Your task to perform on an android device: open chrome privacy settings Image 0: 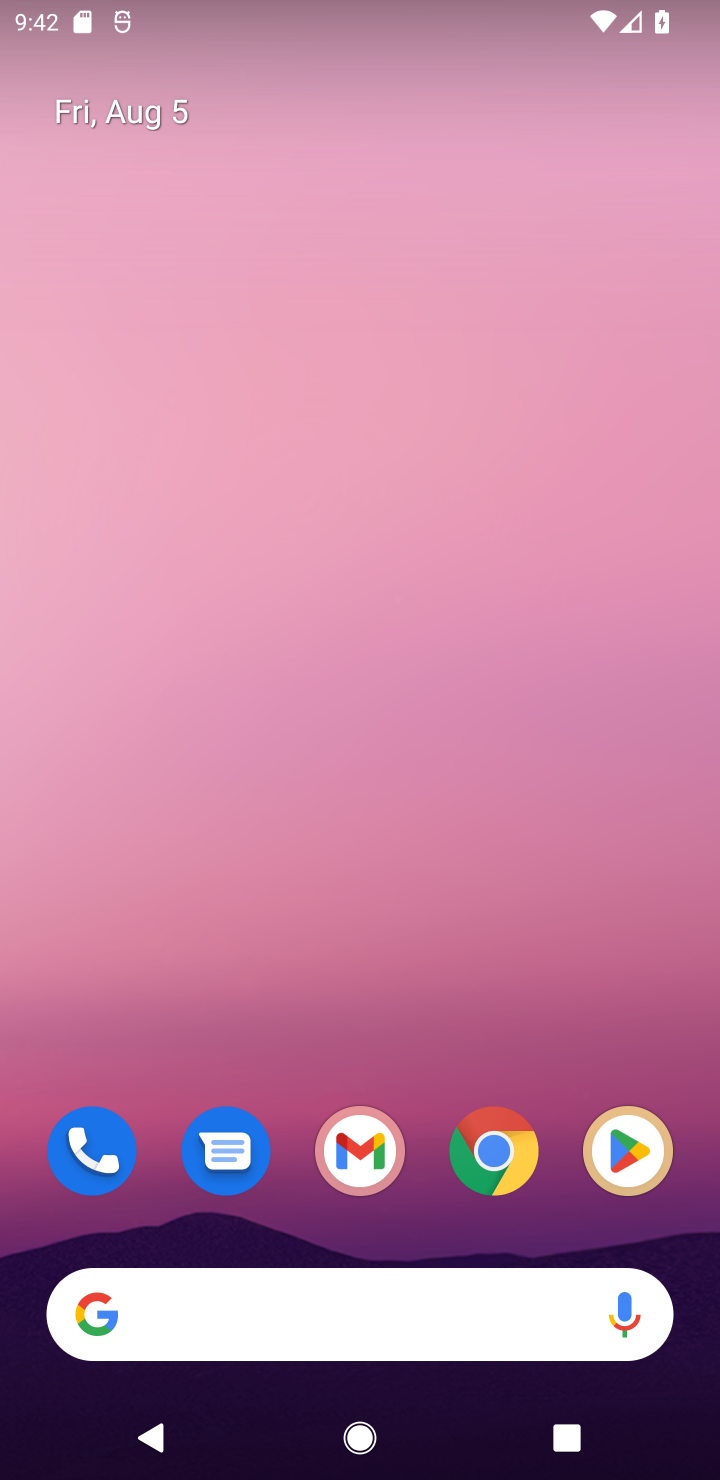
Step 0: drag from (454, 955) to (535, 186)
Your task to perform on an android device: open chrome privacy settings Image 1: 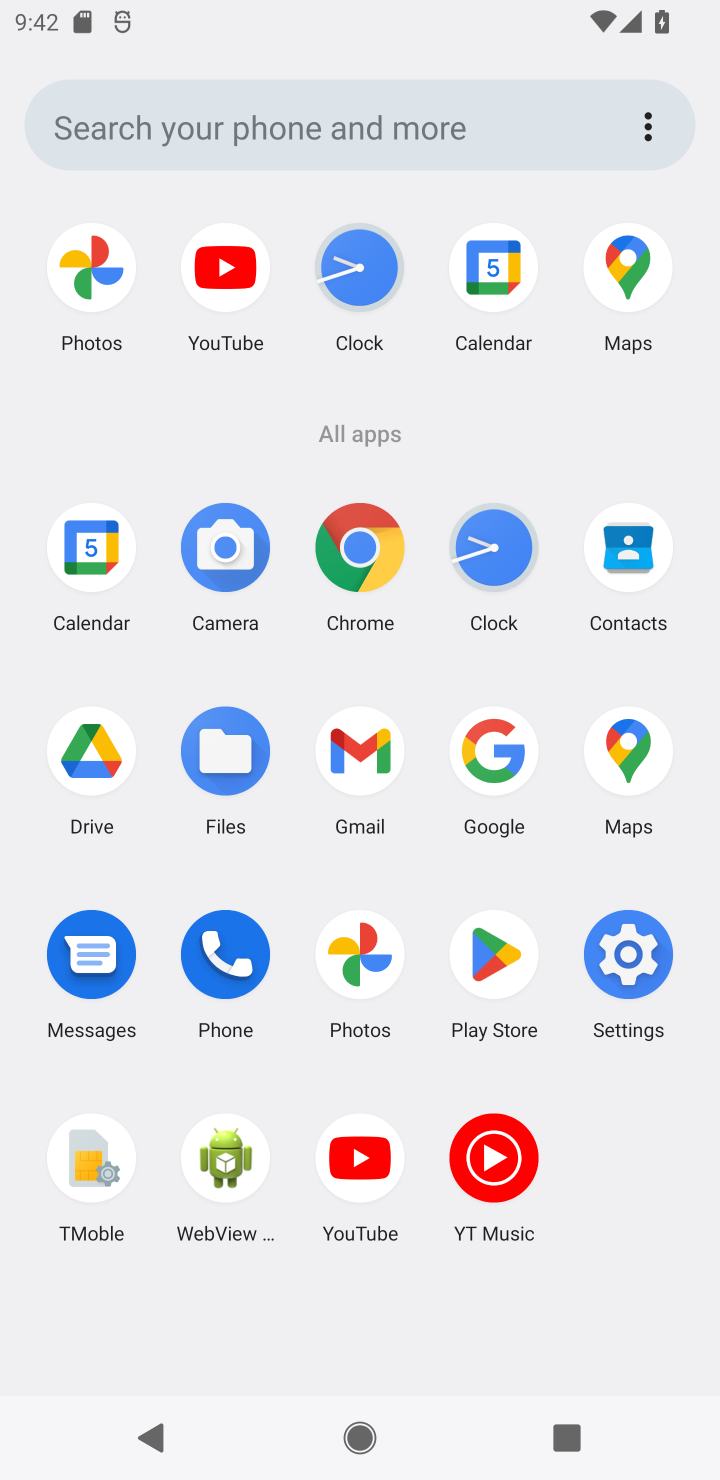
Step 1: click (639, 955)
Your task to perform on an android device: open chrome privacy settings Image 2: 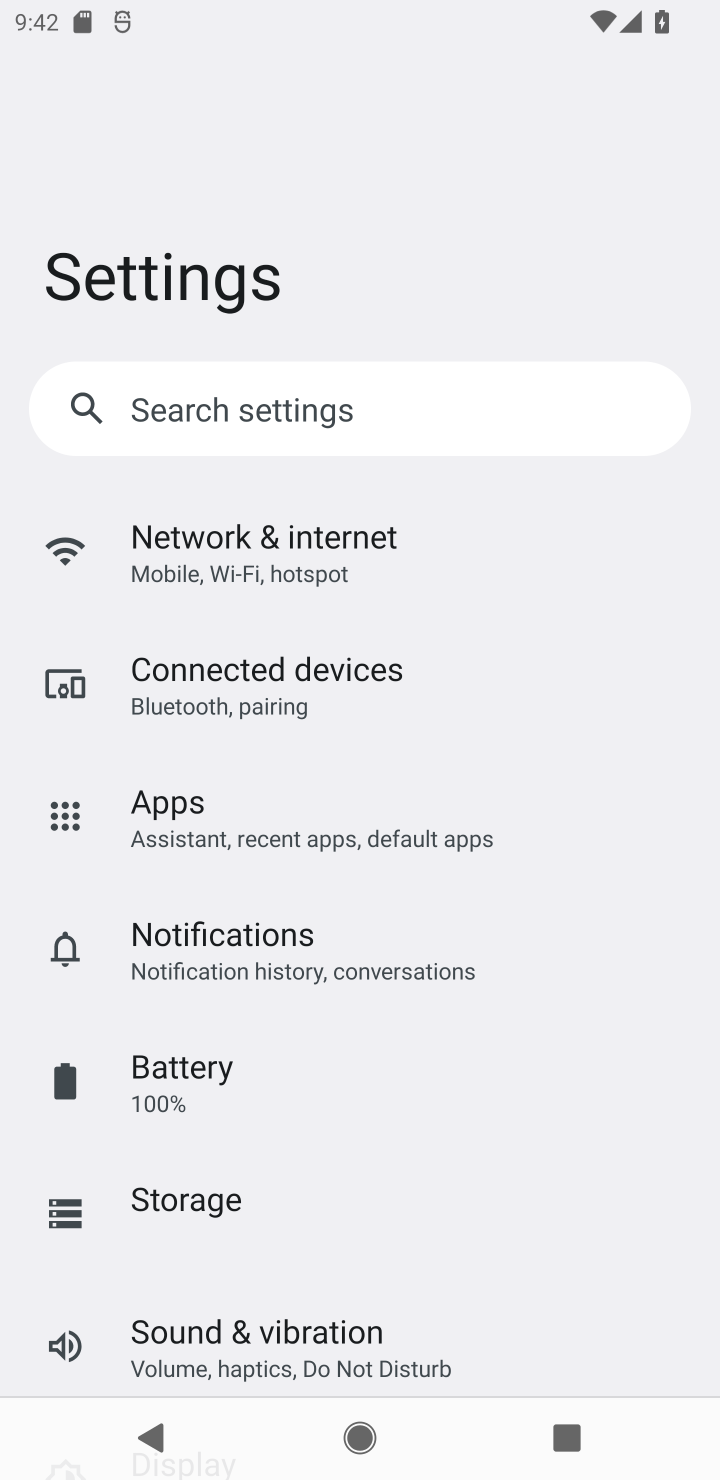
Step 2: drag from (453, 1194) to (483, 107)
Your task to perform on an android device: open chrome privacy settings Image 3: 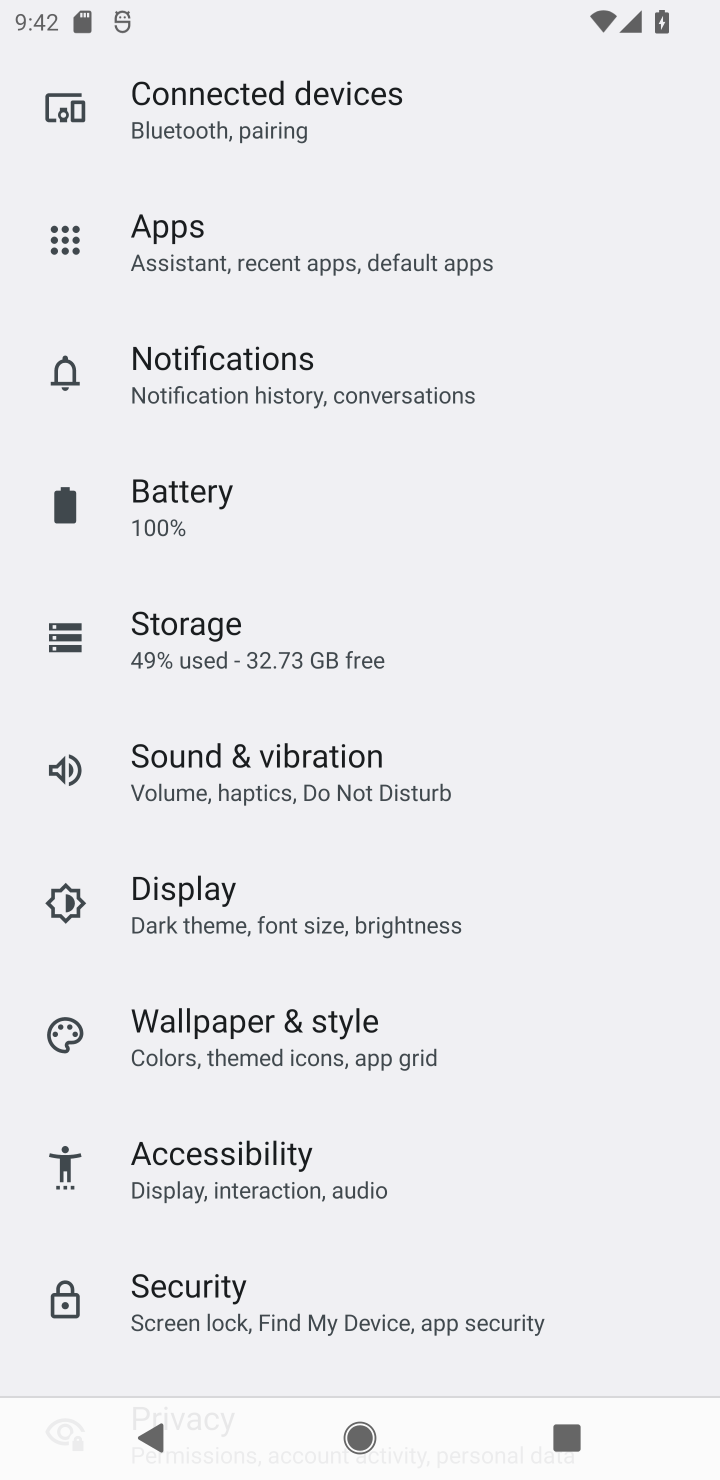
Step 3: drag from (272, 1276) to (414, 34)
Your task to perform on an android device: open chrome privacy settings Image 4: 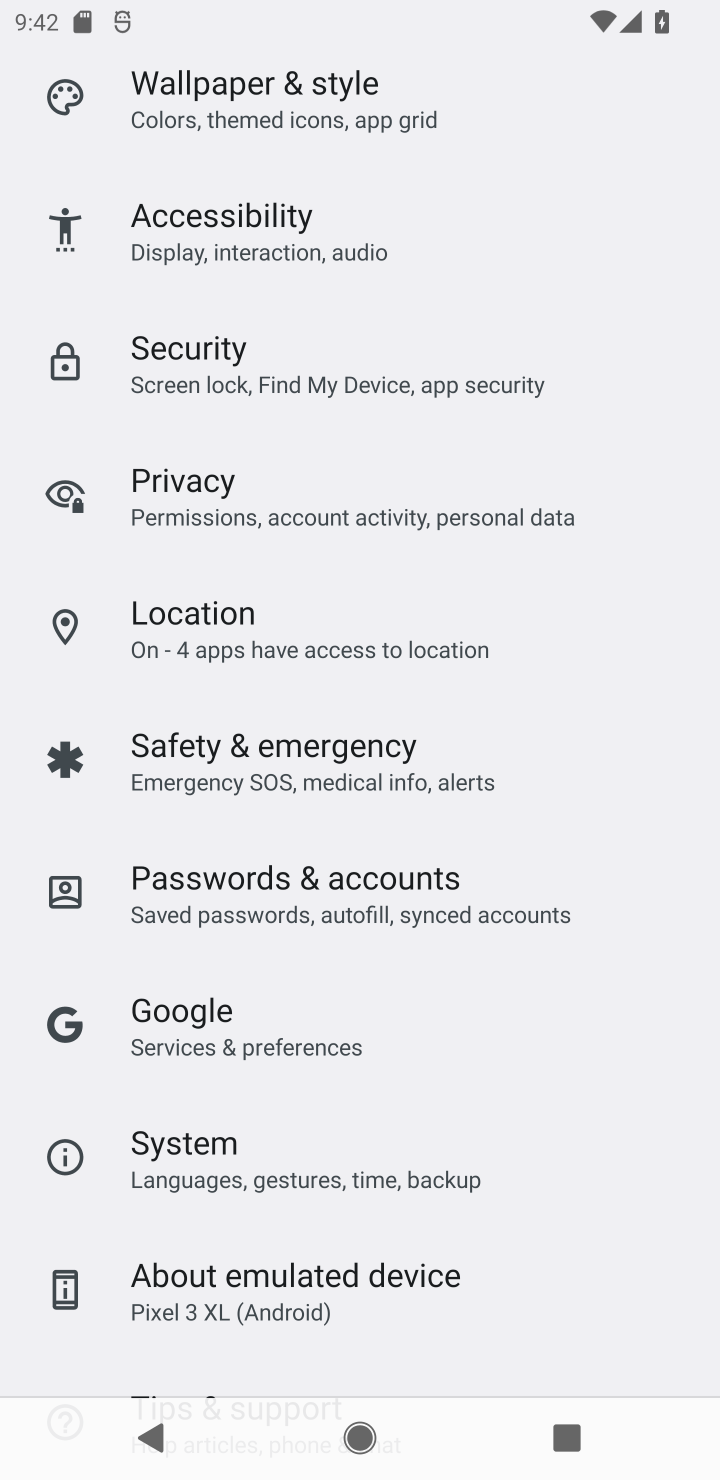
Step 4: click (247, 484)
Your task to perform on an android device: open chrome privacy settings Image 5: 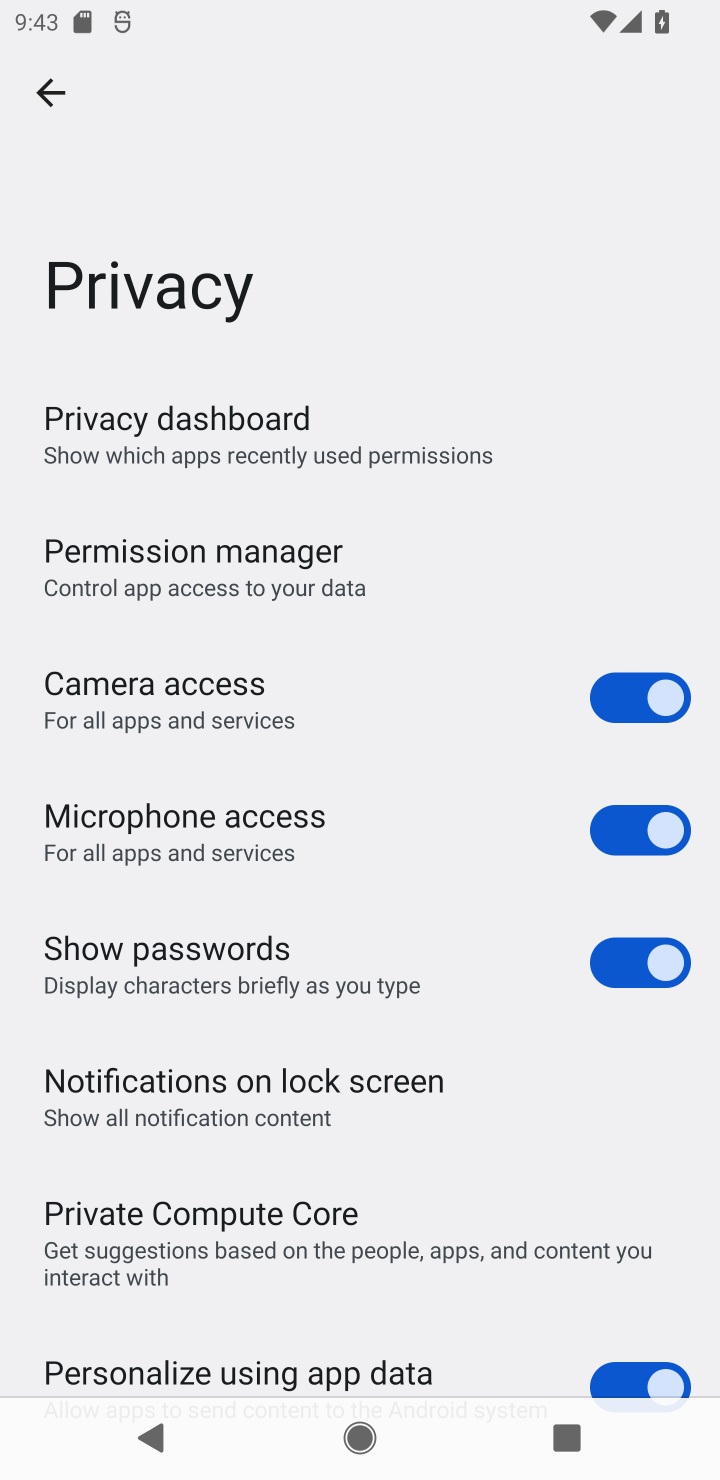
Step 5: task complete